Your task to perform on an android device: Open sound settings Image 0: 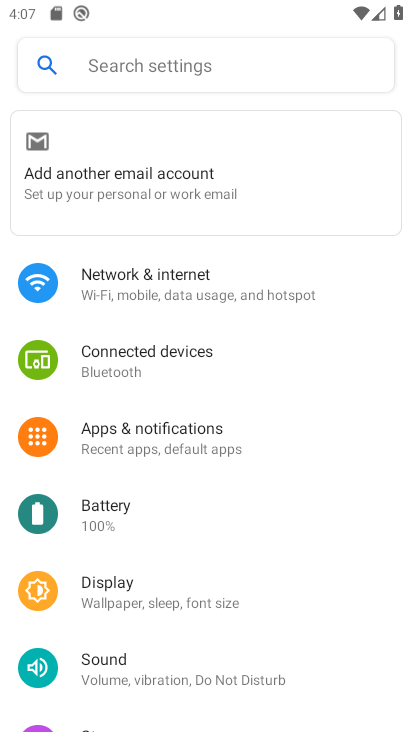
Step 0: press home button
Your task to perform on an android device: Open sound settings Image 1: 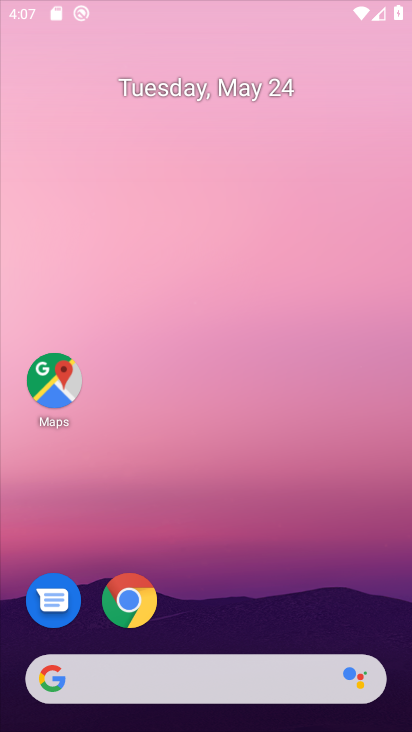
Step 1: drag from (250, 631) to (250, 726)
Your task to perform on an android device: Open sound settings Image 2: 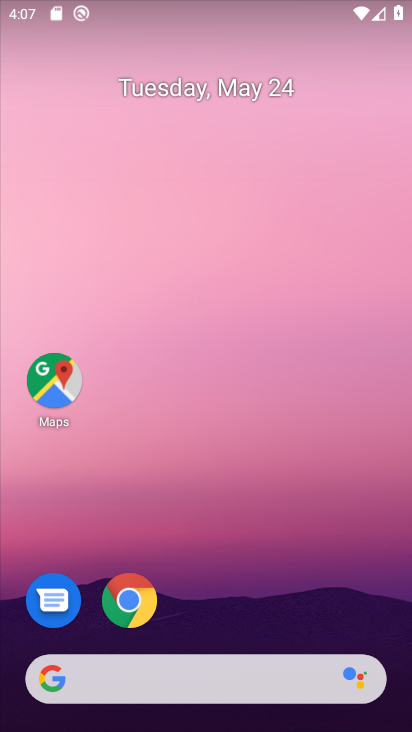
Step 2: drag from (249, 665) to (326, 15)
Your task to perform on an android device: Open sound settings Image 3: 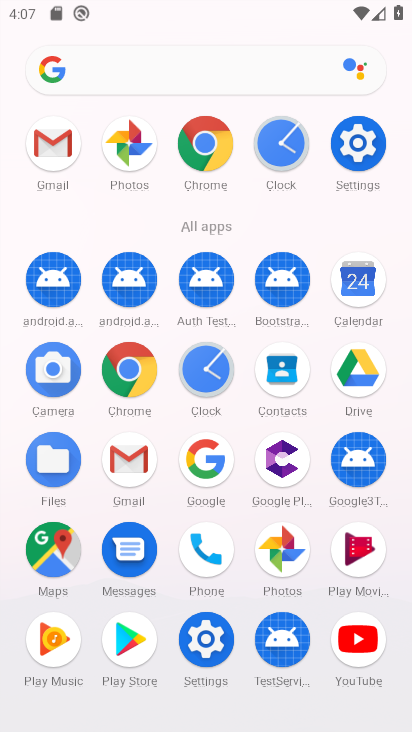
Step 3: click (365, 142)
Your task to perform on an android device: Open sound settings Image 4: 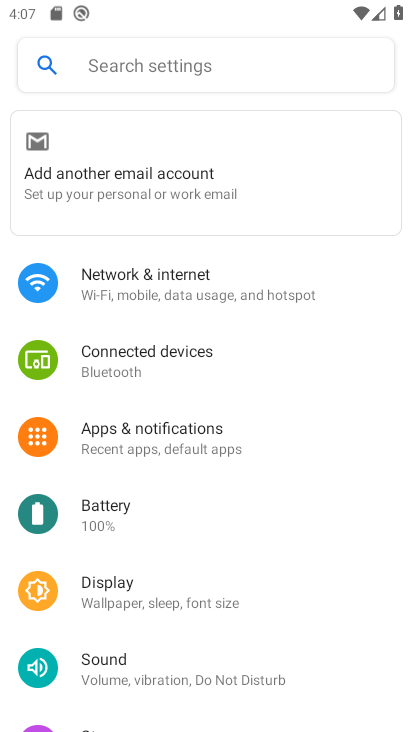
Step 4: click (181, 678)
Your task to perform on an android device: Open sound settings Image 5: 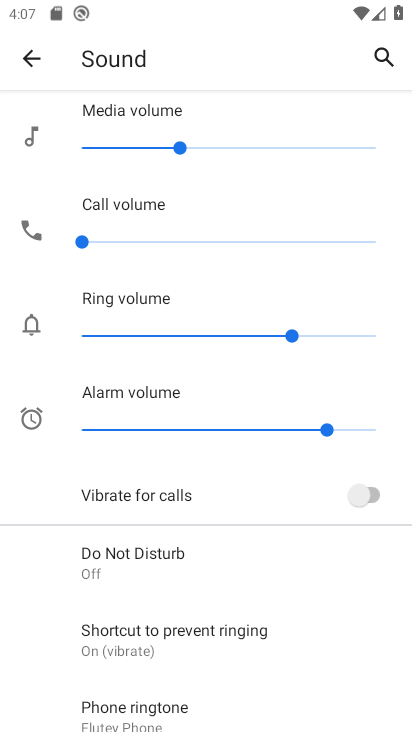
Step 5: task complete